Your task to perform on an android device: Go to CNN.com Image 0: 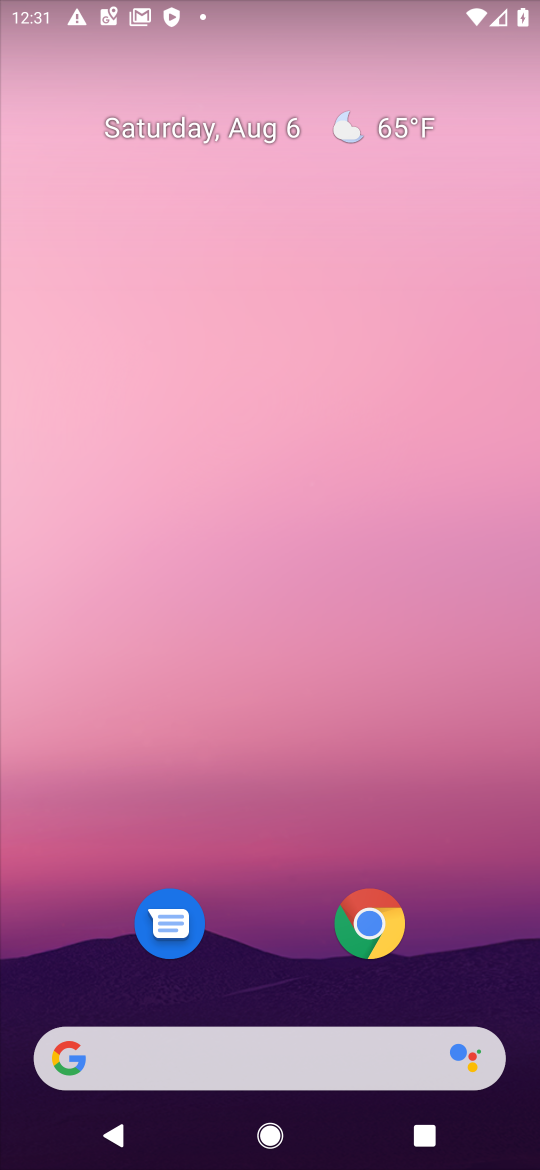
Step 0: drag from (121, 7) to (354, 24)
Your task to perform on an android device: Go to CNN.com Image 1: 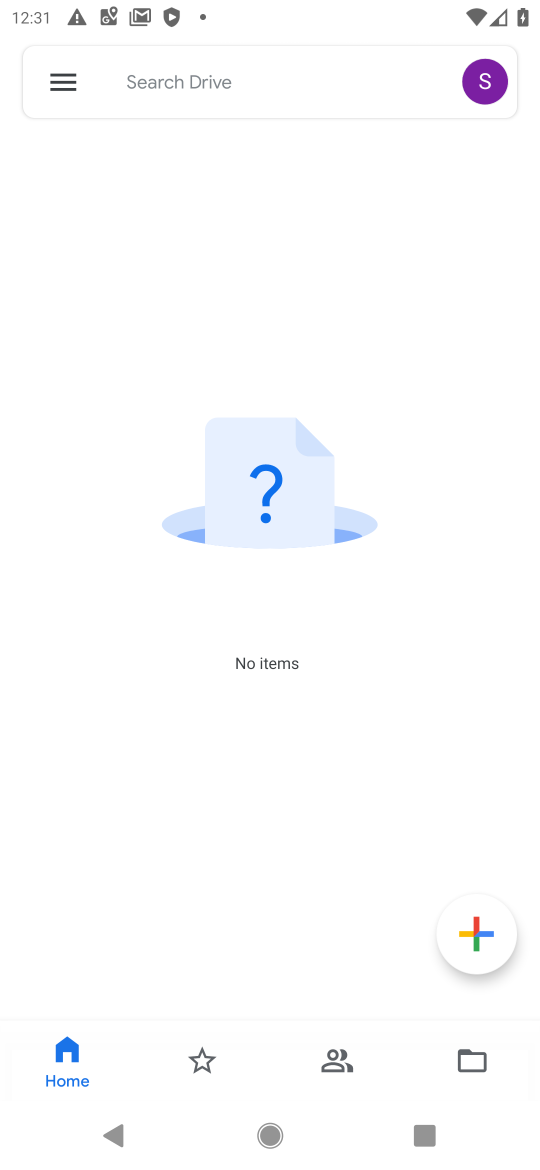
Step 1: press home button
Your task to perform on an android device: Go to CNN.com Image 2: 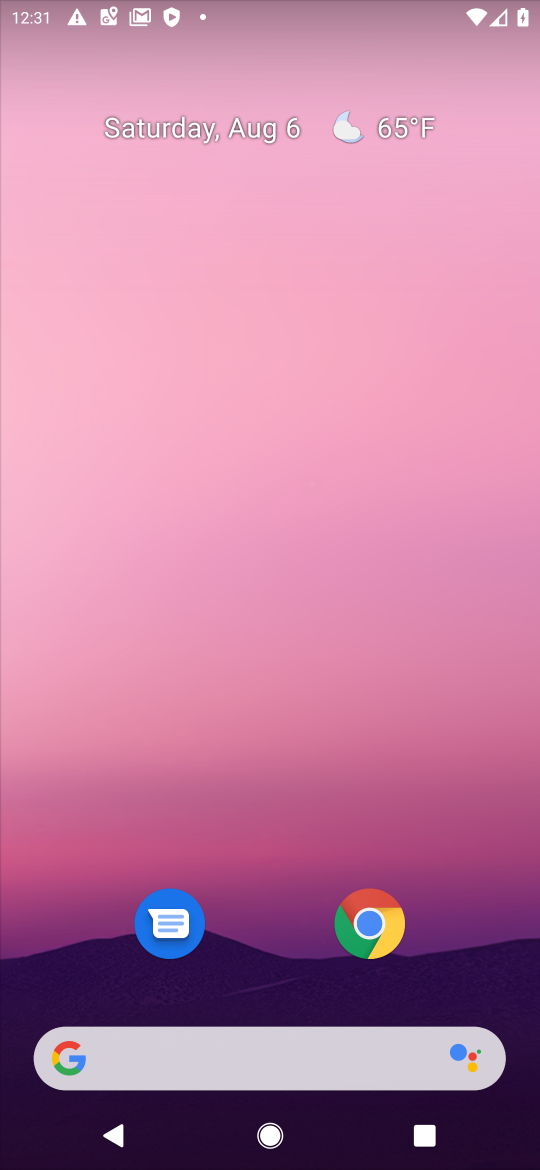
Step 2: drag from (181, 1037) to (231, 15)
Your task to perform on an android device: Go to CNN.com Image 3: 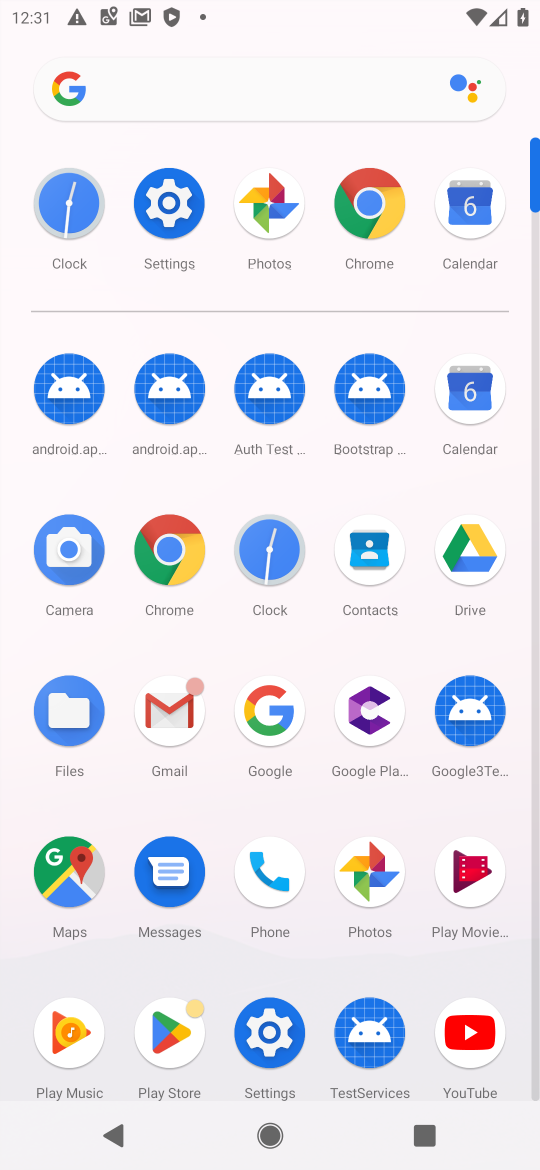
Step 3: click (191, 540)
Your task to perform on an android device: Go to CNN.com Image 4: 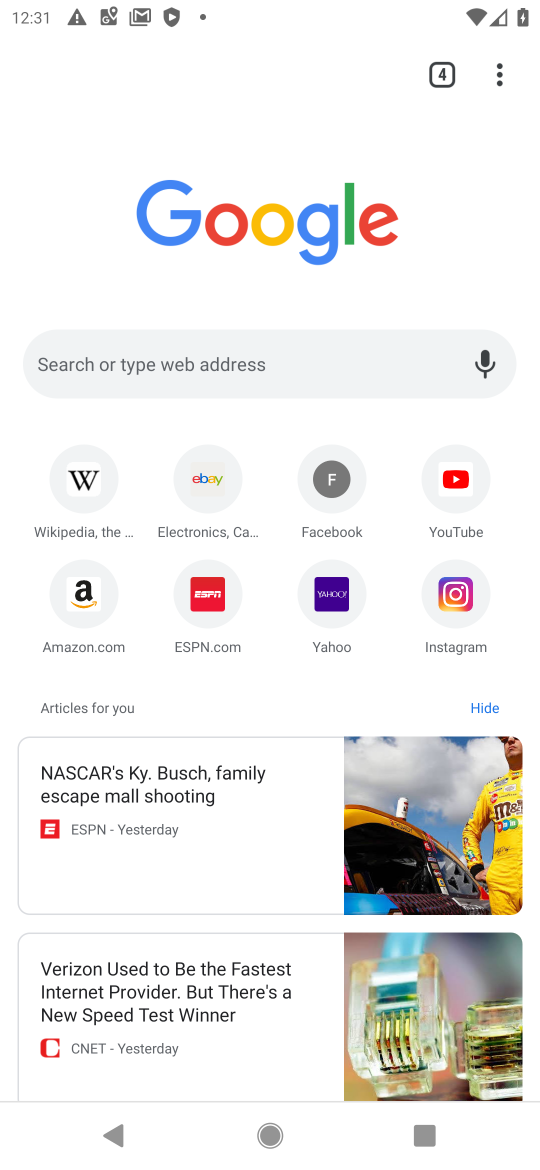
Step 4: click (364, 344)
Your task to perform on an android device: Go to CNN.com Image 5: 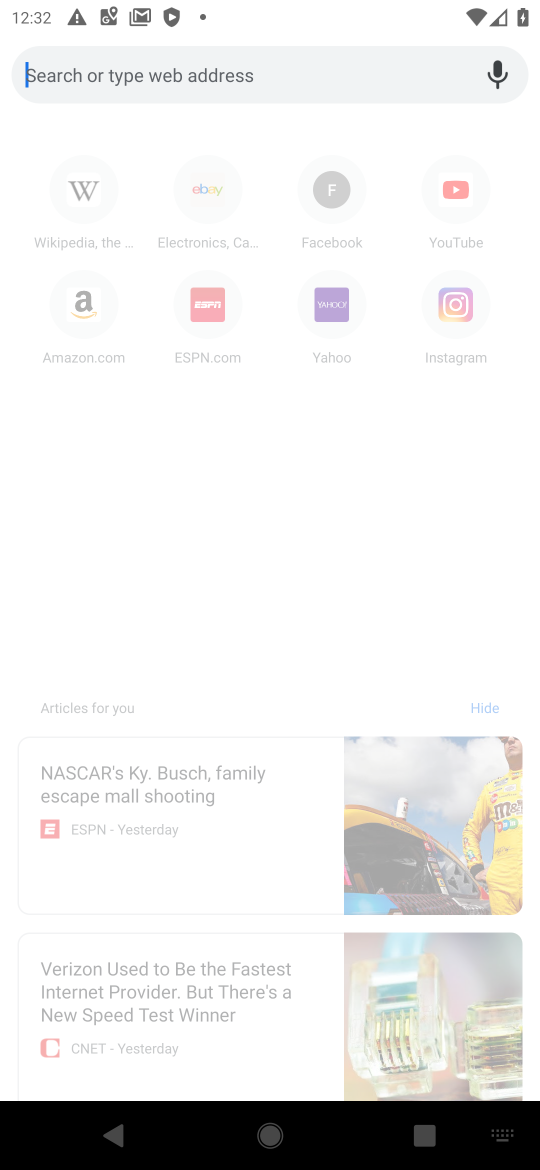
Step 5: type "cnn.com"
Your task to perform on an android device: Go to CNN.com Image 6: 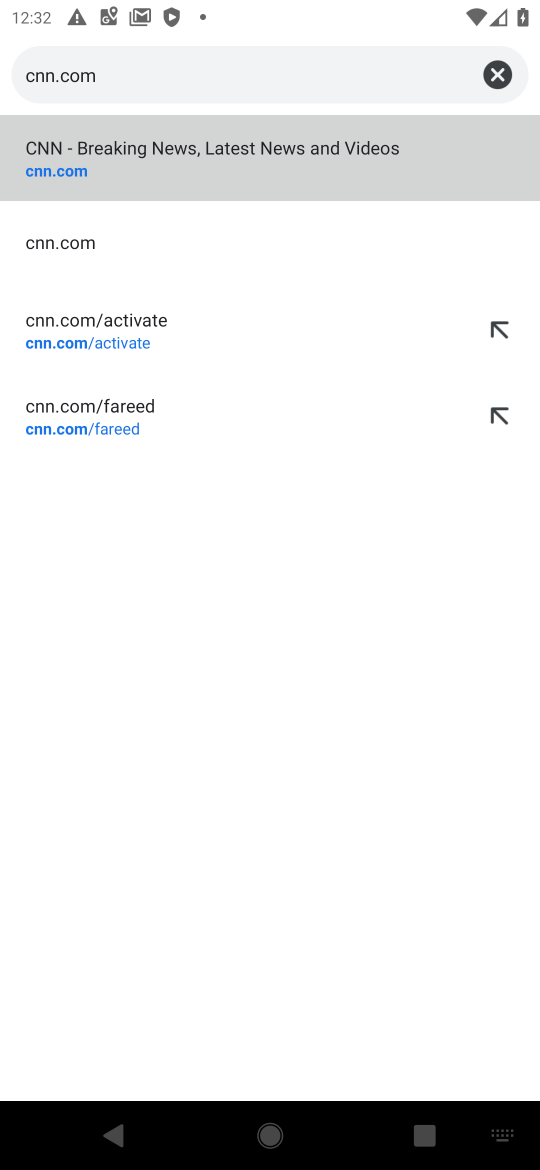
Step 6: click (276, 126)
Your task to perform on an android device: Go to CNN.com Image 7: 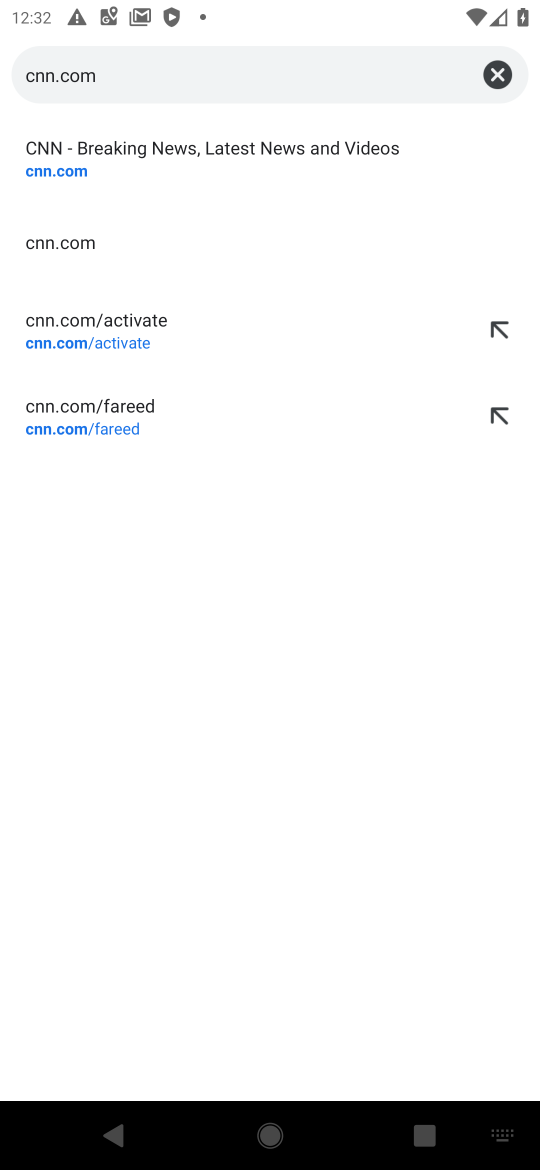
Step 7: click (272, 151)
Your task to perform on an android device: Go to CNN.com Image 8: 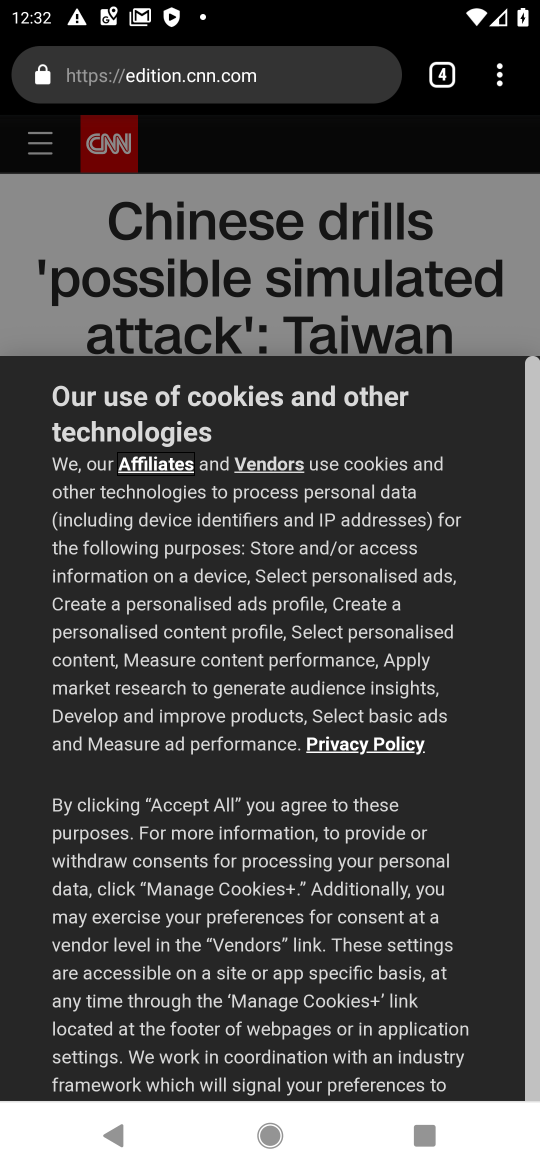
Step 8: task complete